Your task to perform on an android device: Go to CNN.com Image 0: 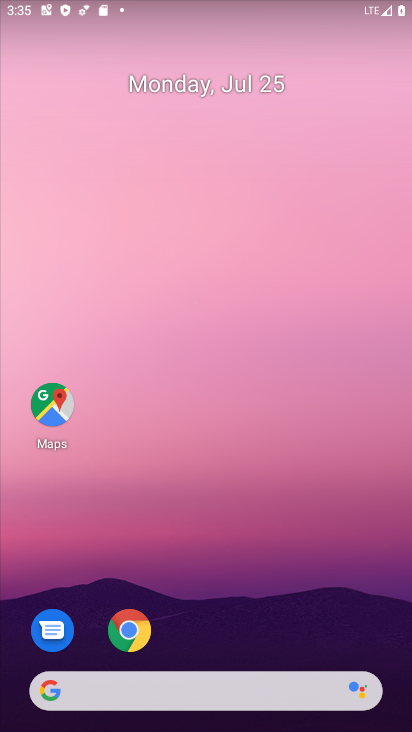
Step 0: click (135, 635)
Your task to perform on an android device: Go to CNN.com Image 1: 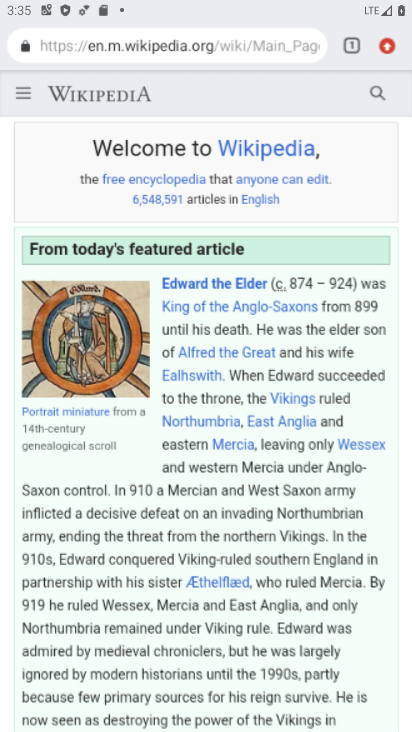
Step 1: click (196, 41)
Your task to perform on an android device: Go to CNN.com Image 2: 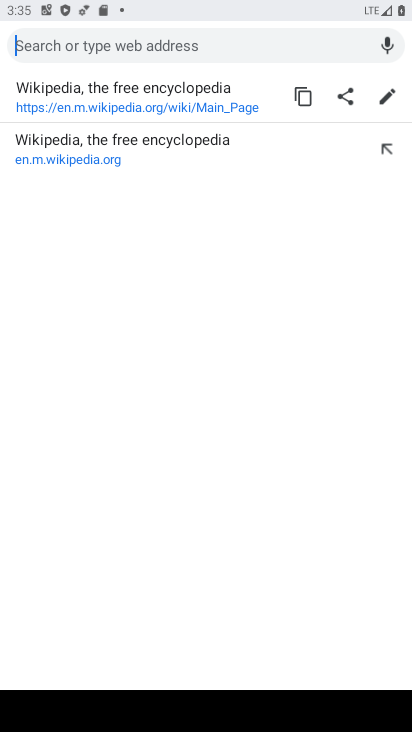
Step 2: type "CNN.com"
Your task to perform on an android device: Go to CNN.com Image 3: 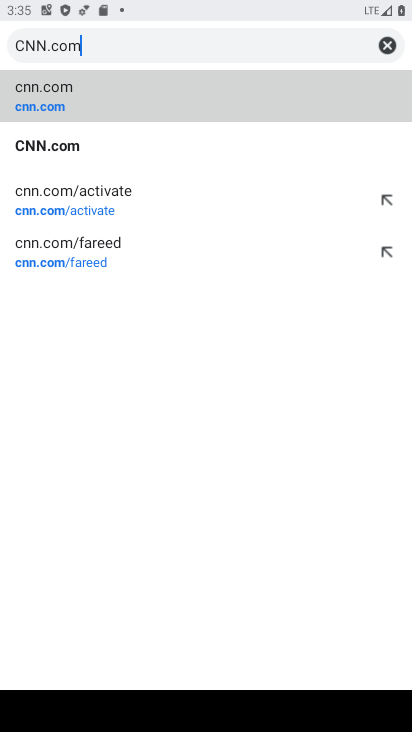
Step 3: click (108, 98)
Your task to perform on an android device: Go to CNN.com Image 4: 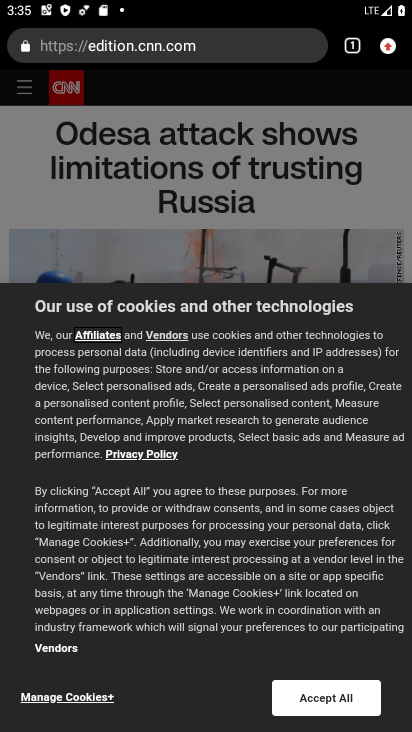
Step 4: task complete